Your task to perform on an android device: turn off location history Image 0: 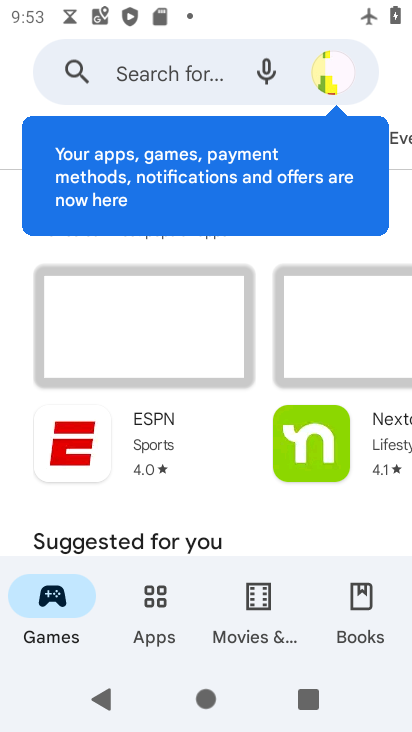
Step 0: press home button
Your task to perform on an android device: turn off location history Image 1: 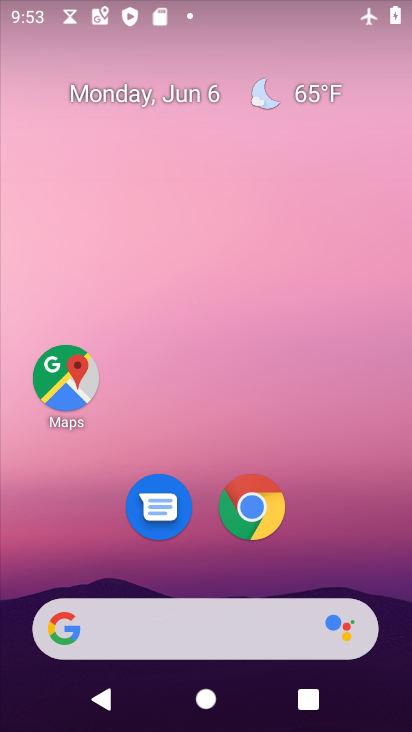
Step 1: drag from (267, 565) to (242, 259)
Your task to perform on an android device: turn off location history Image 2: 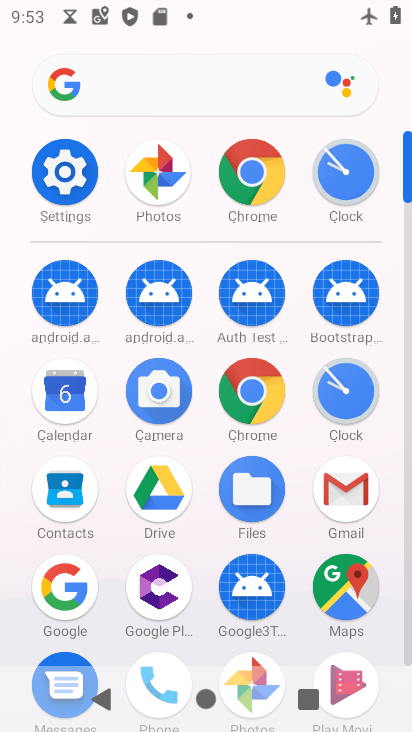
Step 2: click (337, 586)
Your task to perform on an android device: turn off location history Image 3: 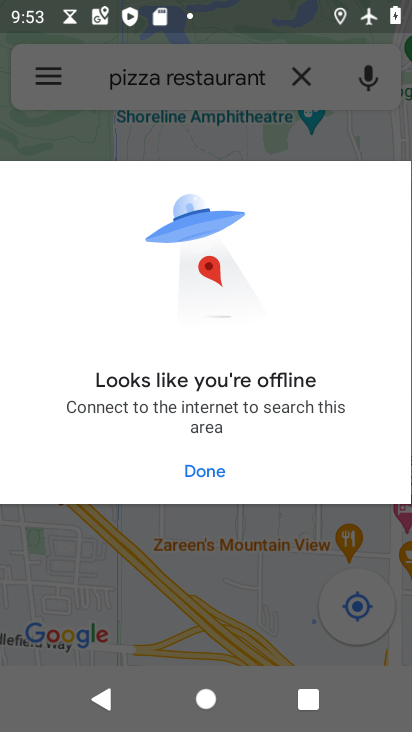
Step 3: click (198, 481)
Your task to perform on an android device: turn off location history Image 4: 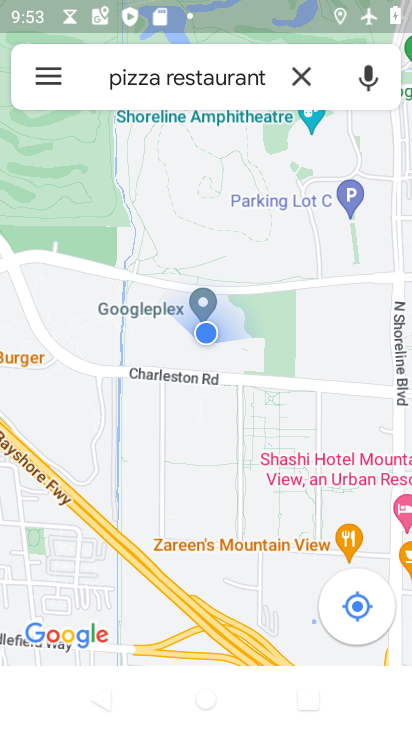
Step 4: click (43, 67)
Your task to perform on an android device: turn off location history Image 5: 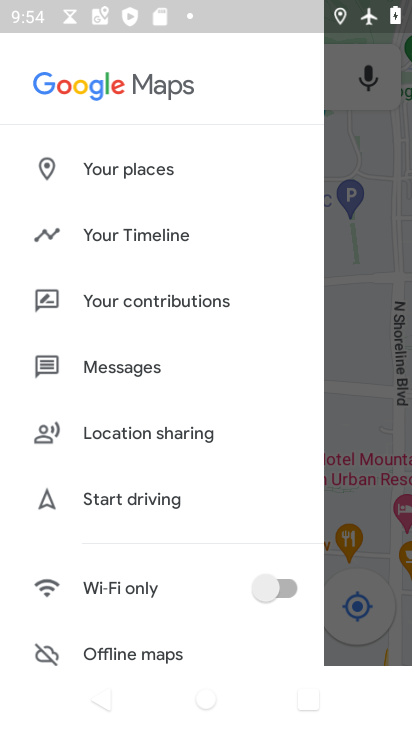
Step 5: drag from (136, 558) to (181, 609)
Your task to perform on an android device: turn off location history Image 6: 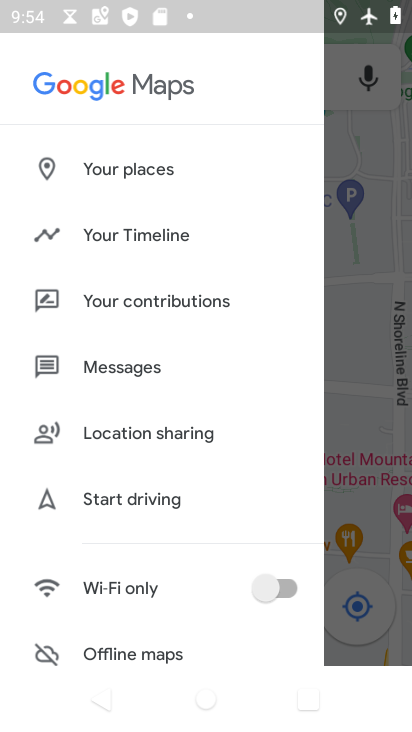
Step 6: click (119, 230)
Your task to perform on an android device: turn off location history Image 7: 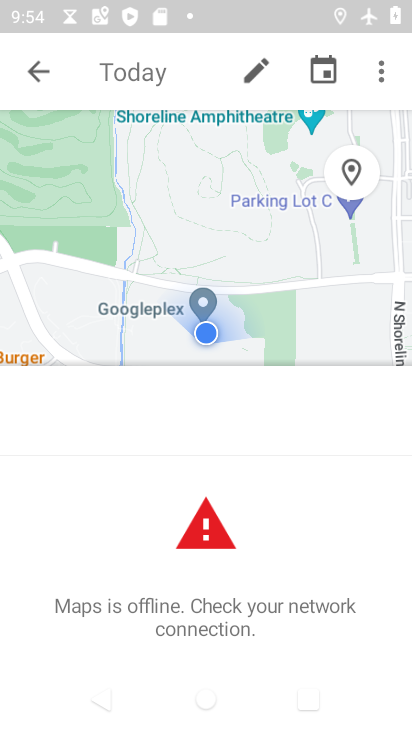
Step 7: click (378, 66)
Your task to perform on an android device: turn off location history Image 8: 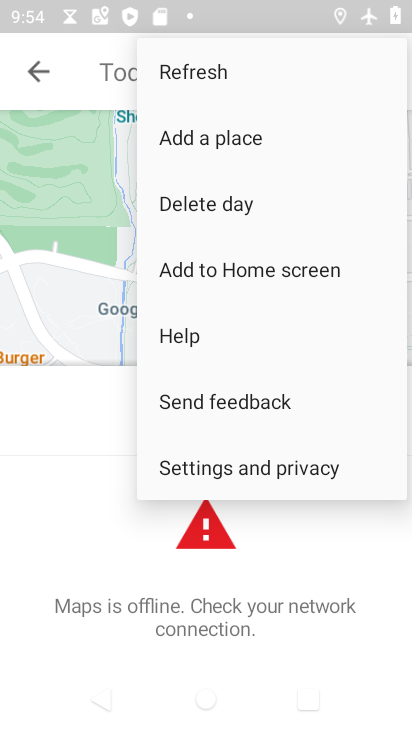
Step 8: click (247, 470)
Your task to perform on an android device: turn off location history Image 9: 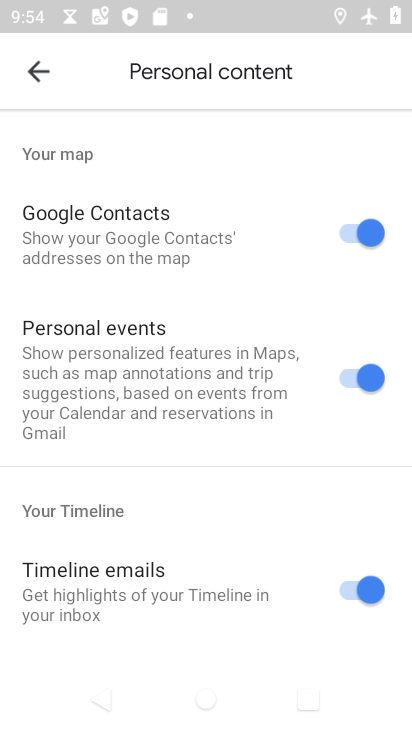
Step 9: drag from (190, 644) to (215, 276)
Your task to perform on an android device: turn off location history Image 10: 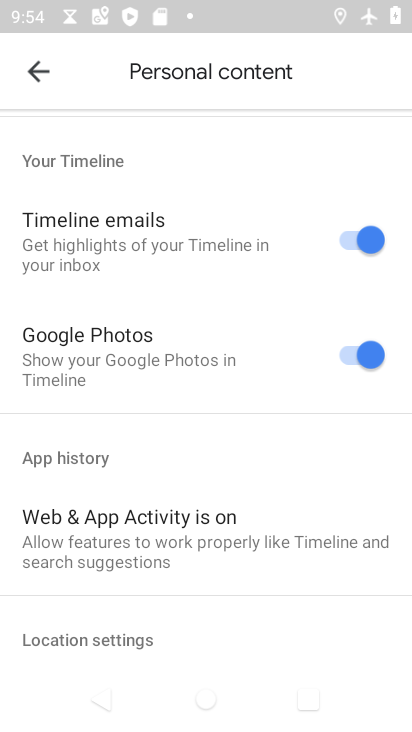
Step 10: drag from (147, 608) to (201, 324)
Your task to perform on an android device: turn off location history Image 11: 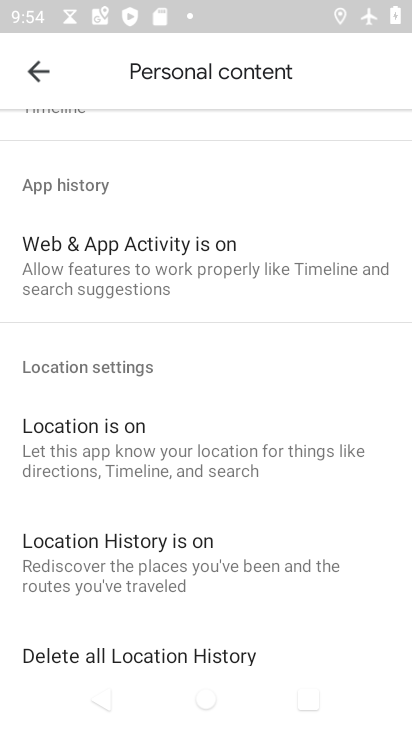
Step 11: click (136, 568)
Your task to perform on an android device: turn off location history Image 12: 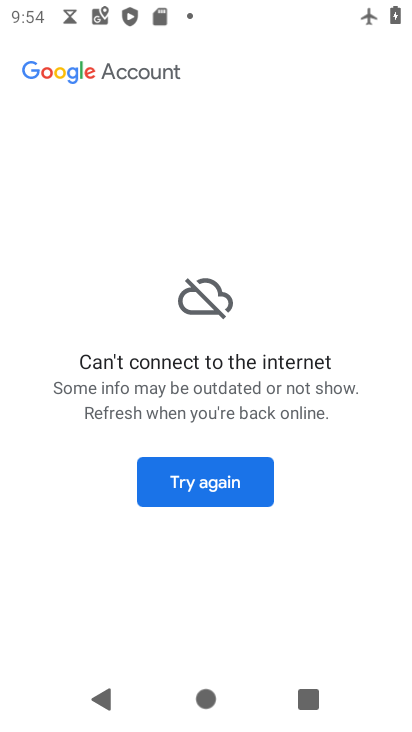
Step 12: click (211, 487)
Your task to perform on an android device: turn off location history Image 13: 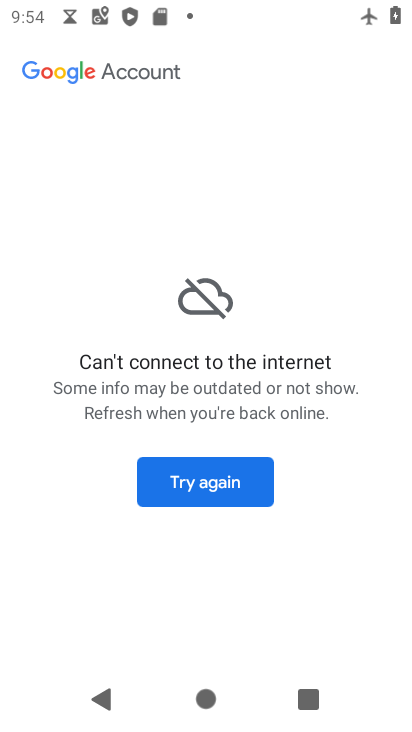
Step 13: click (212, 484)
Your task to perform on an android device: turn off location history Image 14: 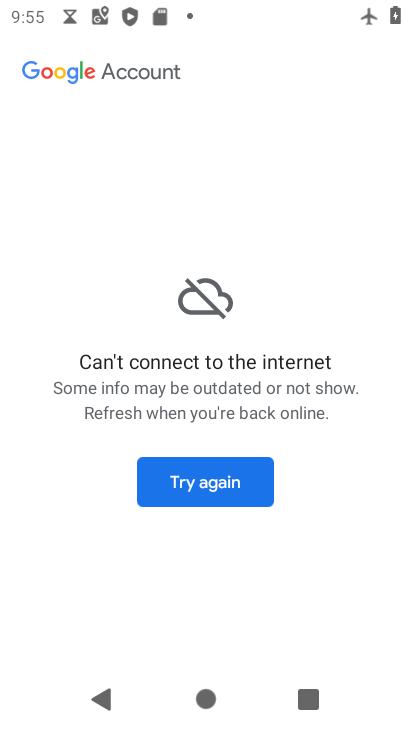
Step 14: task complete